Your task to perform on an android device: Go to sound settings Image 0: 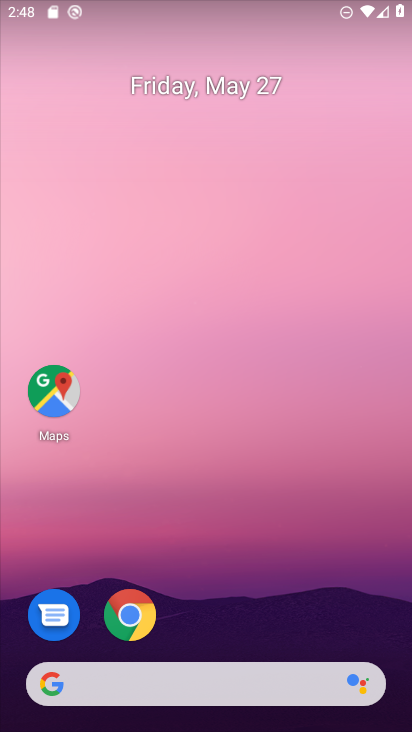
Step 0: drag from (316, 538) to (176, 57)
Your task to perform on an android device: Go to sound settings Image 1: 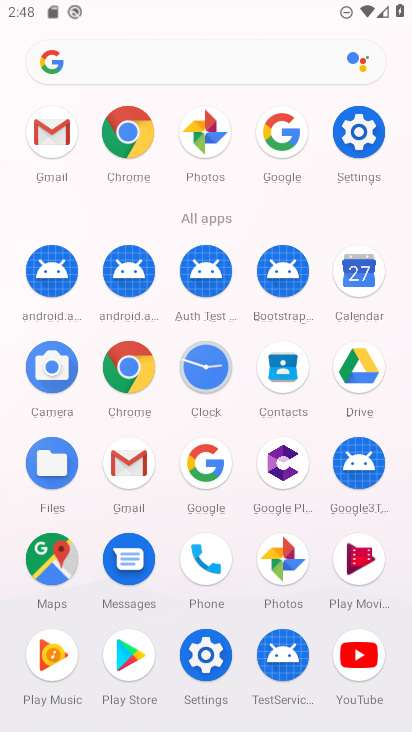
Step 1: click (348, 138)
Your task to perform on an android device: Go to sound settings Image 2: 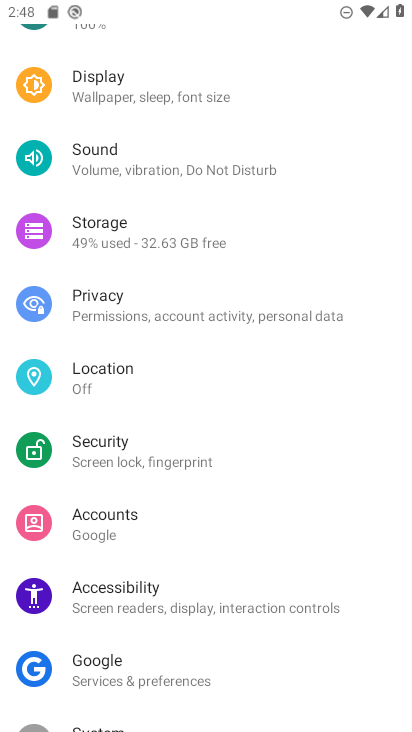
Step 2: click (149, 167)
Your task to perform on an android device: Go to sound settings Image 3: 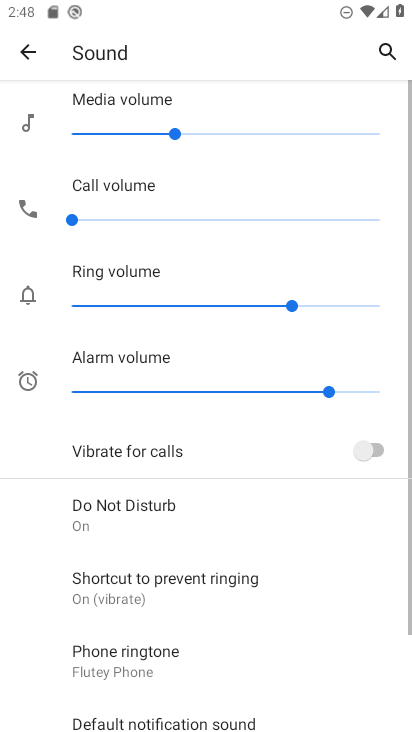
Step 3: task complete